Your task to perform on an android device: turn pop-ups on in chrome Image 0: 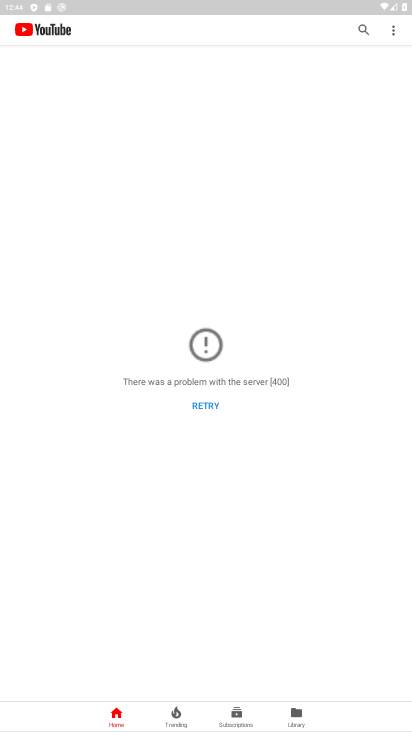
Step 0: press home button
Your task to perform on an android device: turn pop-ups on in chrome Image 1: 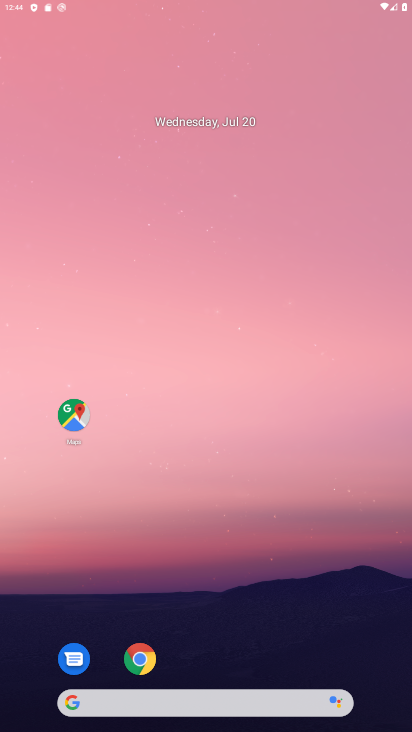
Step 1: drag from (383, 680) to (212, 20)
Your task to perform on an android device: turn pop-ups on in chrome Image 2: 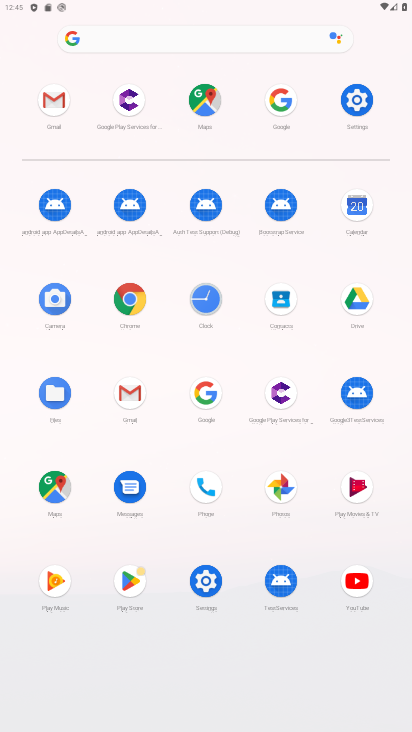
Step 2: click (128, 299)
Your task to perform on an android device: turn pop-ups on in chrome Image 3: 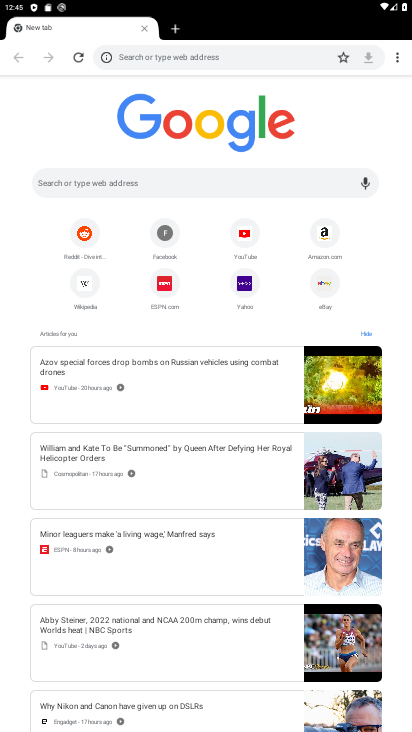
Step 3: click (397, 56)
Your task to perform on an android device: turn pop-ups on in chrome Image 4: 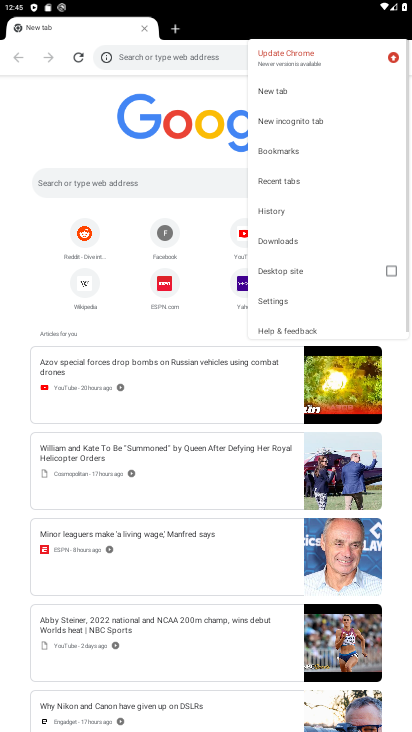
Step 4: click (268, 308)
Your task to perform on an android device: turn pop-ups on in chrome Image 5: 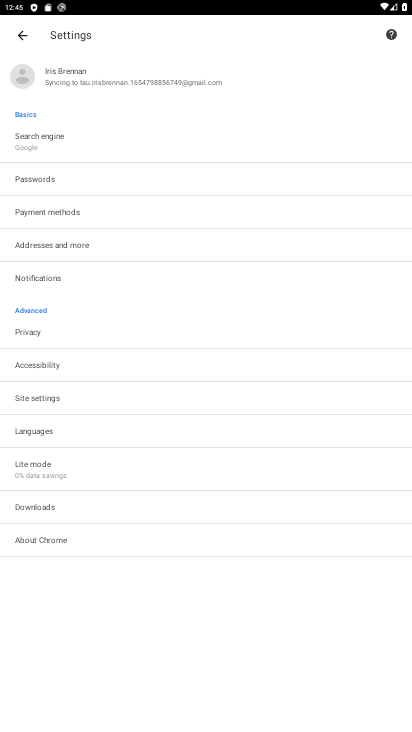
Step 5: click (45, 401)
Your task to perform on an android device: turn pop-ups on in chrome Image 6: 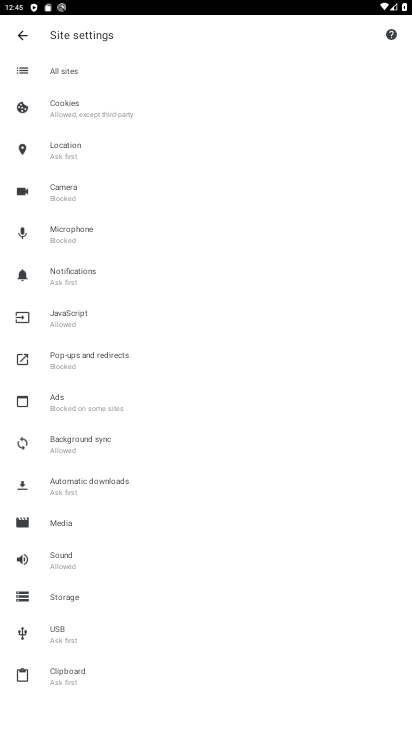
Step 6: click (104, 357)
Your task to perform on an android device: turn pop-ups on in chrome Image 7: 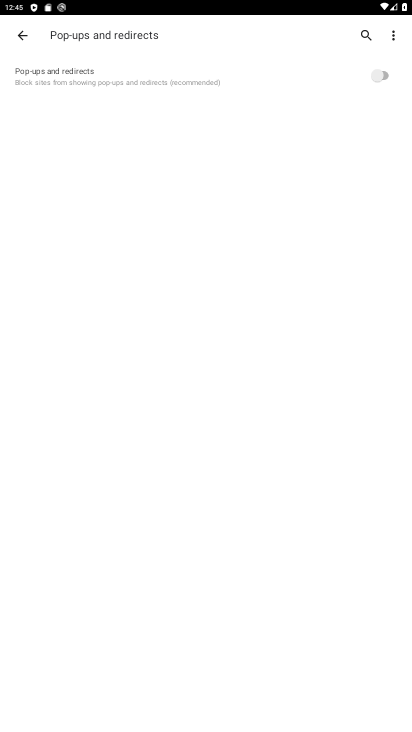
Step 7: click (401, 72)
Your task to perform on an android device: turn pop-ups on in chrome Image 8: 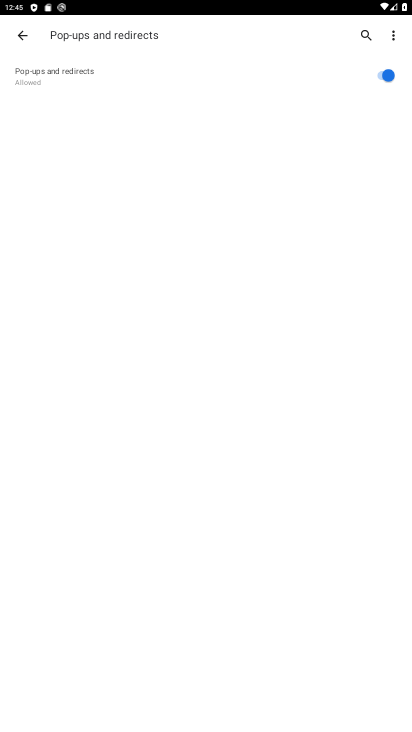
Step 8: task complete